Your task to perform on an android device: allow cookies in the chrome app Image 0: 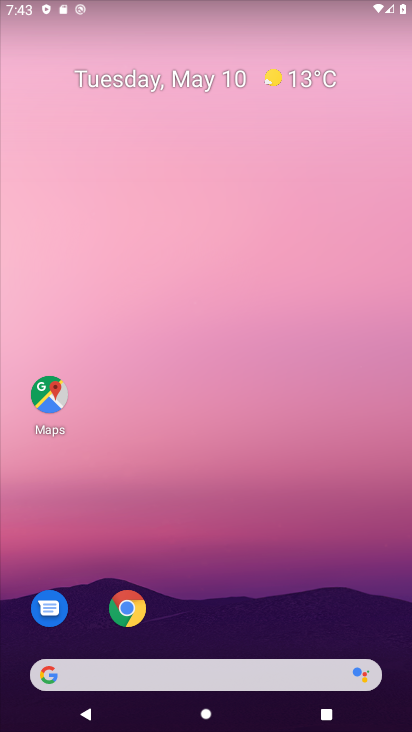
Step 0: drag from (127, 680) to (297, 119)
Your task to perform on an android device: allow cookies in the chrome app Image 1: 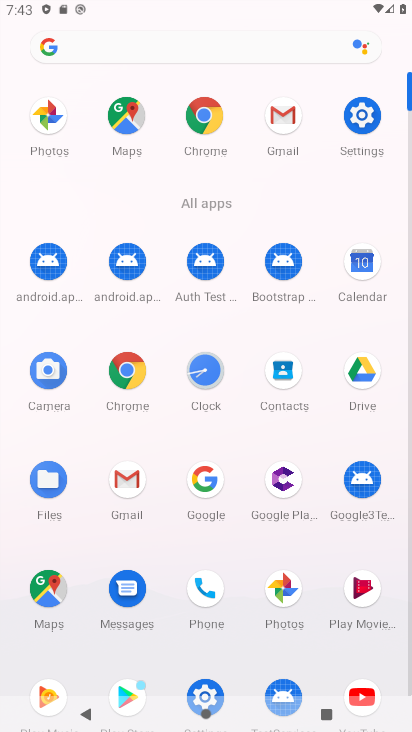
Step 1: click (198, 121)
Your task to perform on an android device: allow cookies in the chrome app Image 2: 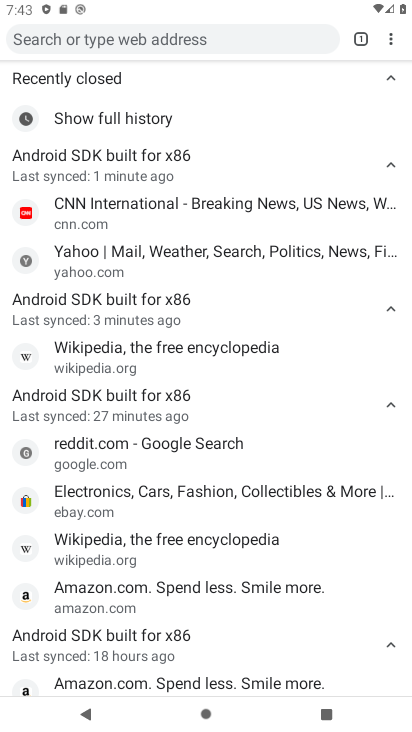
Step 2: drag from (392, 43) to (283, 324)
Your task to perform on an android device: allow cookies in the chrome app Image 3: 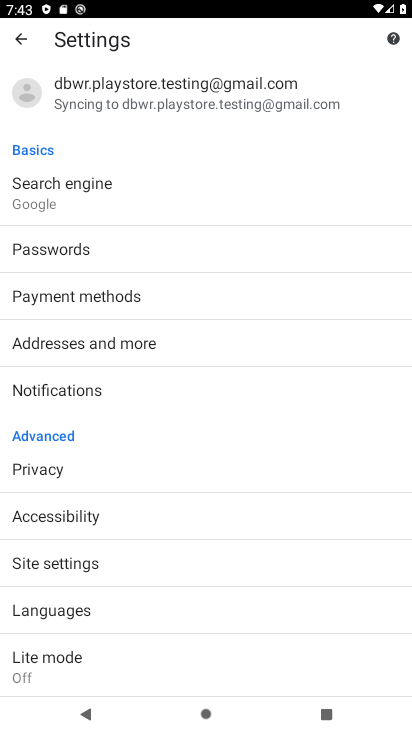
Step 3: click (80, 565)
Your task to perform on an android device: allow cookies in the chrome app Image 4: 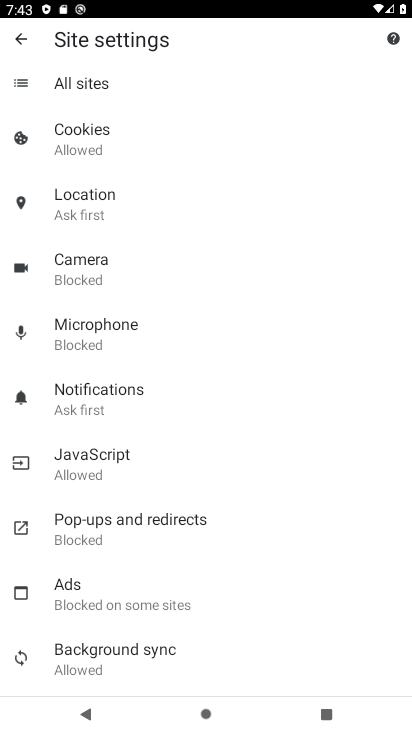
Step 4: click (89, 138)
Your task to perform on an android device: allow cookies in the chrome app Image 5: 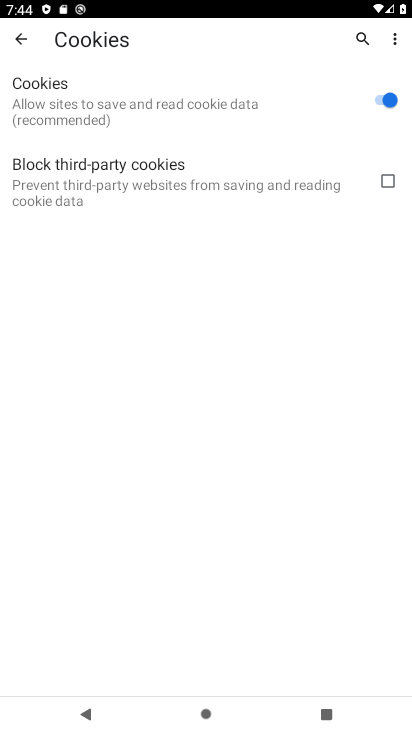
Step 5: task complete